Your task to perform on an android device: allow cookies in the chrome app Image 0: 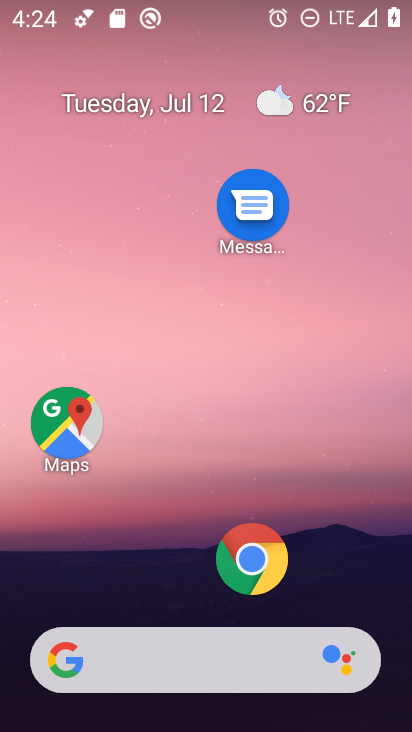
Step 0: click (254, 574)
Your task to perform on an android device: allow cookies in the chrome app Image 1: 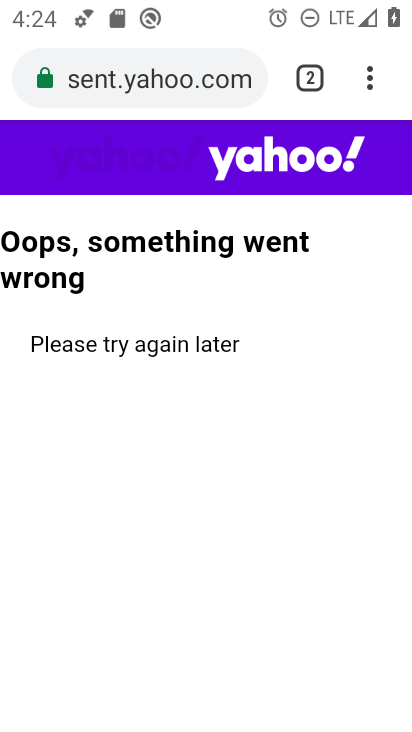
Step 1: drag from (366, 90) to (130, 624)
Your task to perform on an android device: allow cookies in the chrome app Image 2: 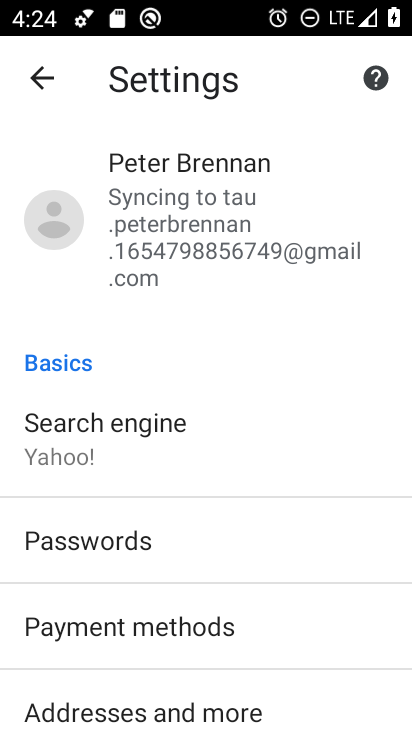
Step 2: drag from (127, 676) to (260, 203)
Your task to perform on an android device: allow cookies in the chrome app Image 3: 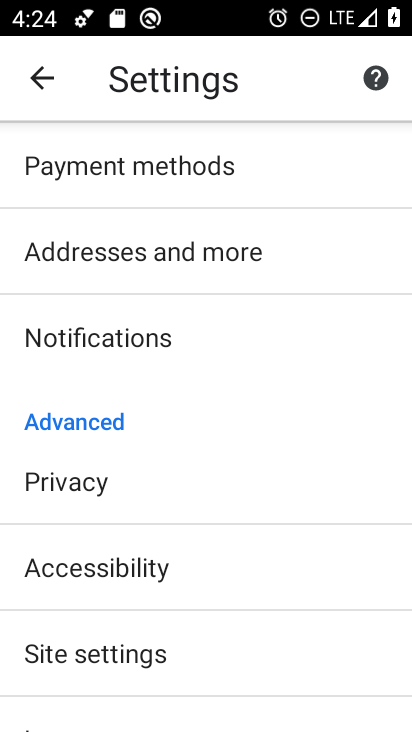
Step 3: click (103, 654)
Your task to perform on an android device: allow cookies in the chrome app Image 4: 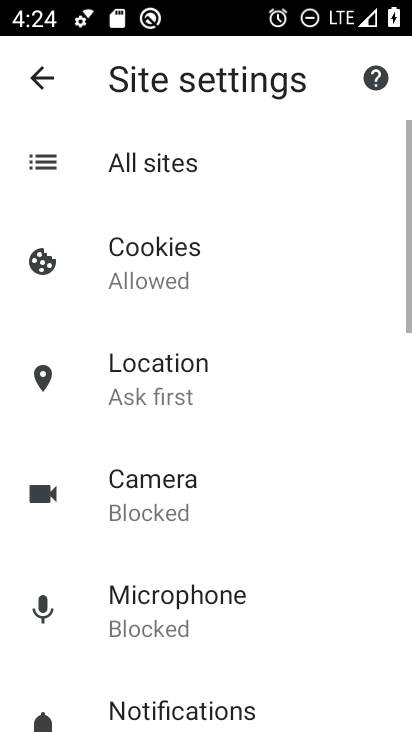
Step 4: click (173, 266)
Your task to perform on an android device: allow cookies in the chrome app Image 5: 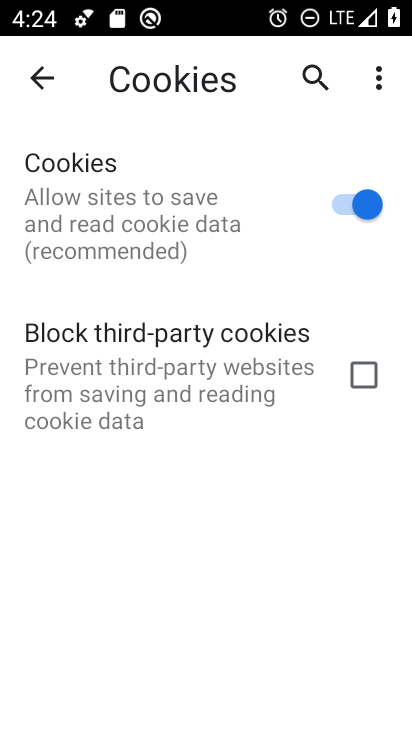
Step 5: task complete